Your task to perform on an android device: Open Maps and search for coffee Image 0: 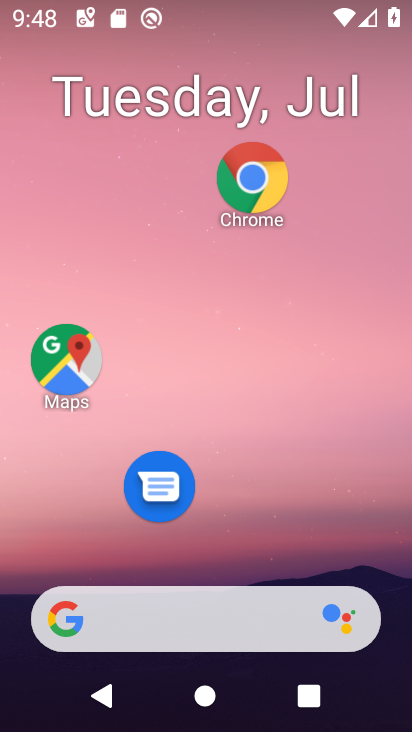
Step 0: drag from (245, 673) to (275, 201)
Your task to perform on an android device: Open Maps and search for coffee Image 1: 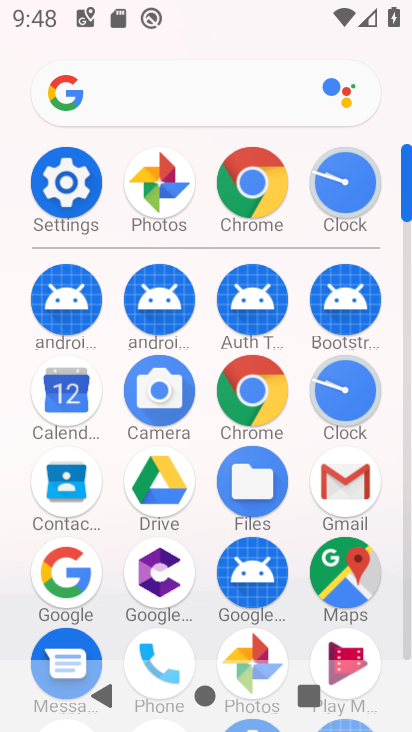
Step 1: click (352, 595)
Your task to perform on an android device: Open Maps and search for coffee Image 2: 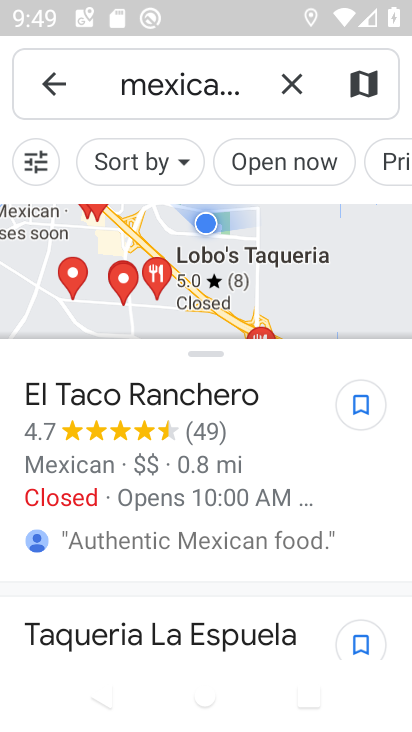
Step 2: click (295, 90)
Your task to perform on an android device: Open Maps and search for coffee Image 3: 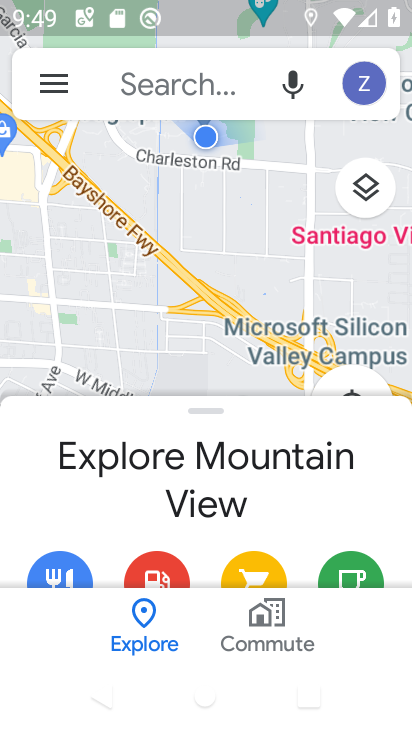
Step 3: click (191, 85)
Your task to perform on an android device: Open Maps and search for coffee Image 4: 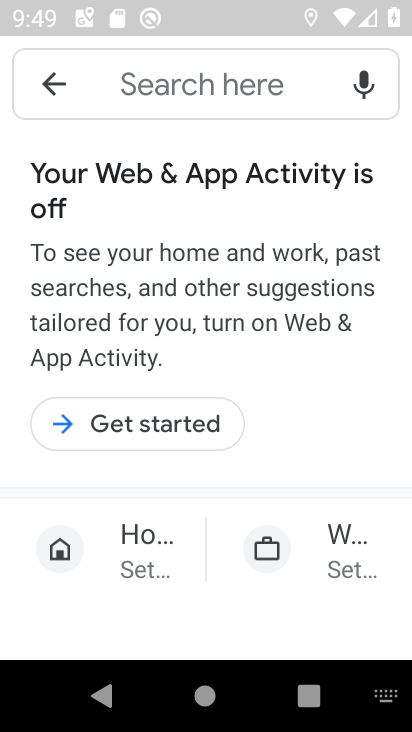
Step 4: type "coffee"
Your task to perform on an android device: Open Maps and search for coffee Image 5: 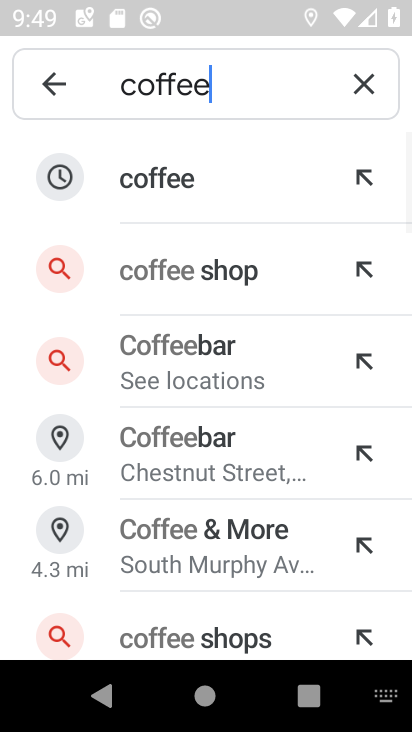
Step 5: click (210, 212)
Your task to perform on an android device: Open Maps and search for coffee Image 6: 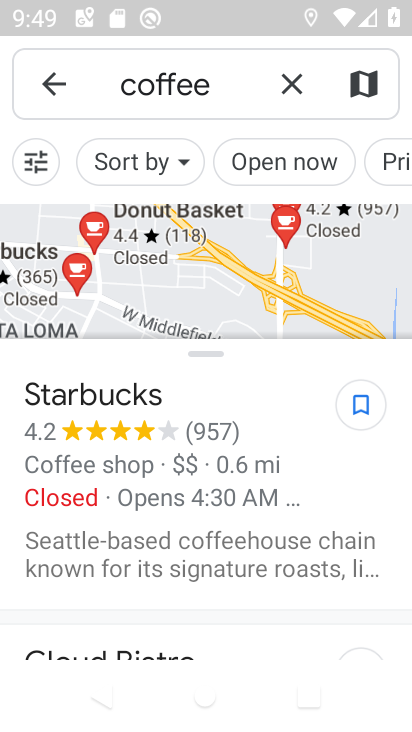
Step 6: task complete